Your task to perform on an android device: What is the recent news? Image 0: 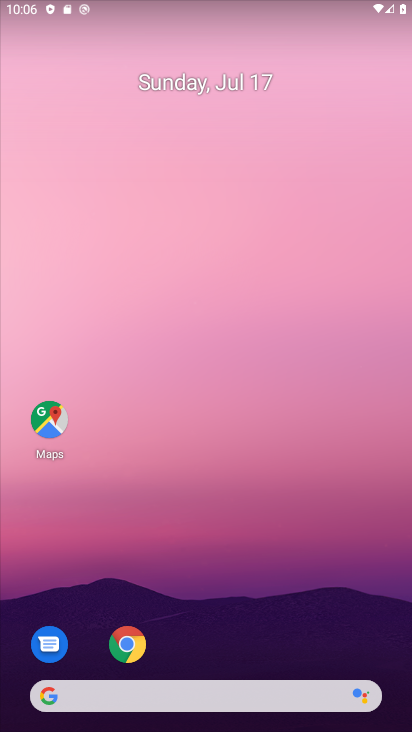
Step 0: drag from (372, 612) to (180, 338)
Your task to perform on an android device: What is the recent news? Image 1: 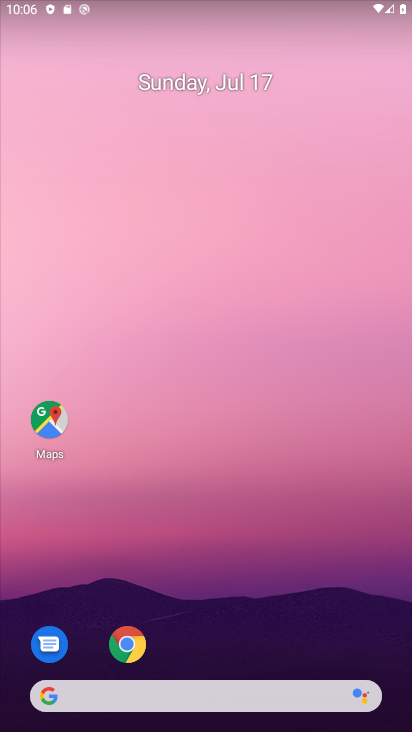
Step 1: drag from (297, 664) to (333, 2)
Your task to perform on an android device: What is the recent news? Image 2: 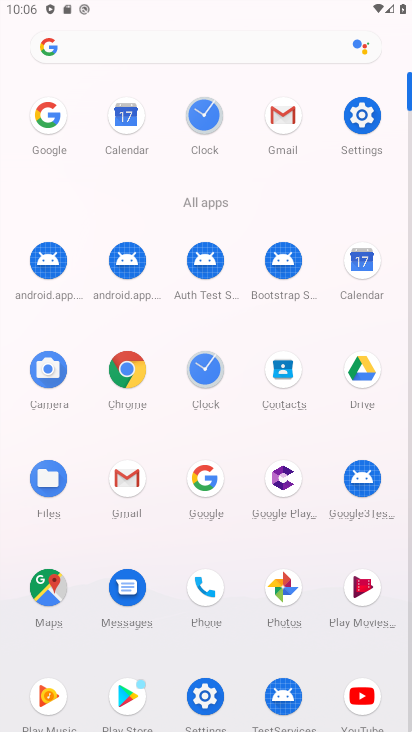
Step 2: click (125, 371)
Your task to perform on an android device: What is the recent news? Image 3: 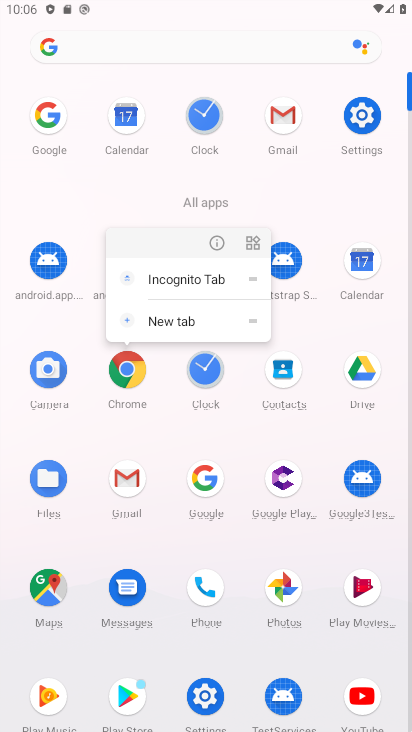
Step 3: click (128, 376)
Your task to perform on an android device: What is the recent news? Image 4: 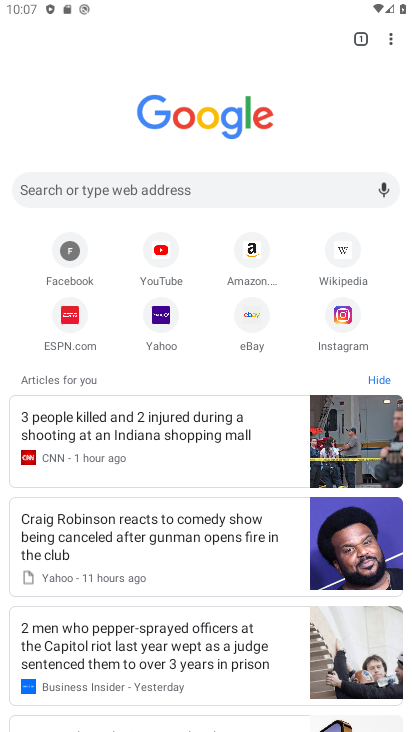
Step 4: task complete